Your task to perform on an android device: open a new tab in the chrome app Image 0: 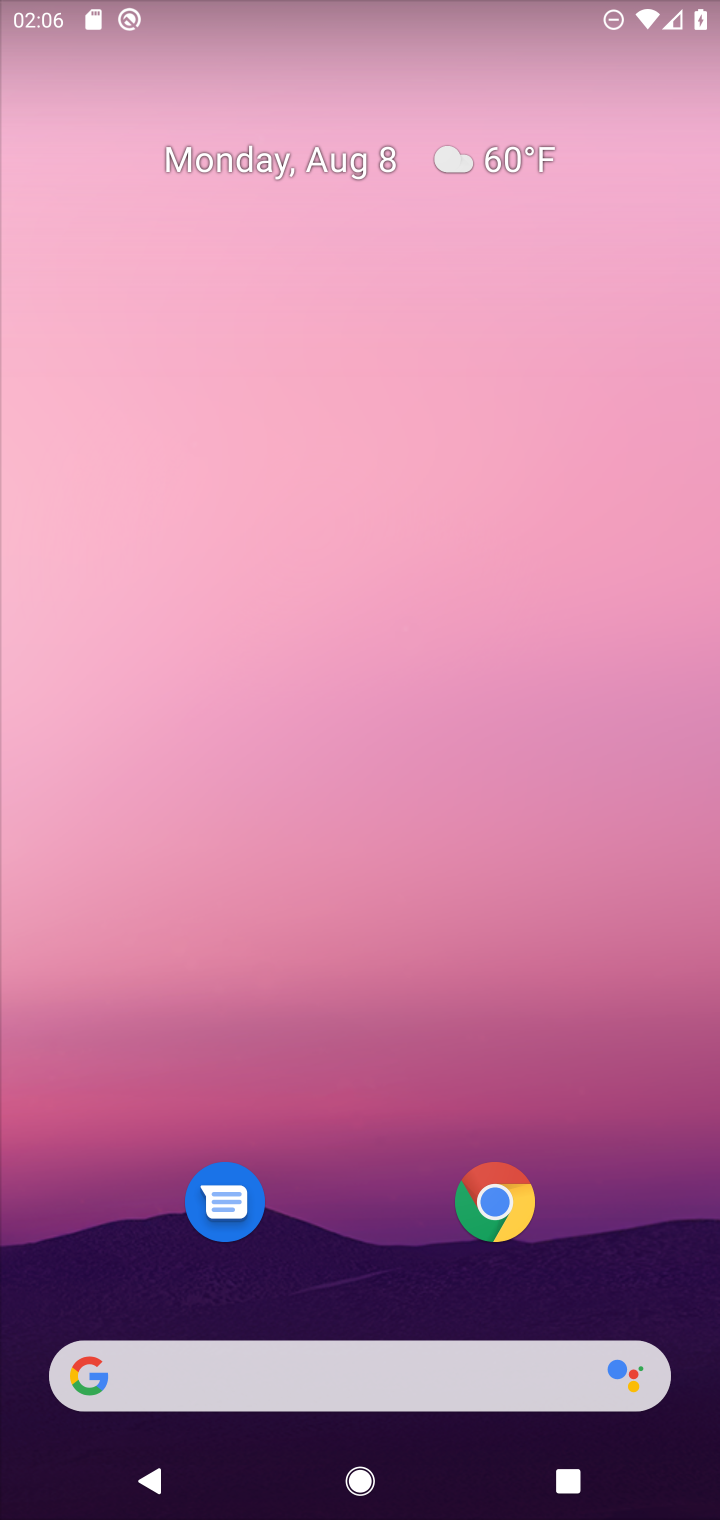
Step 0: press home button
Your task to perform on an android device: open a new tab in the chrome app Image 1: 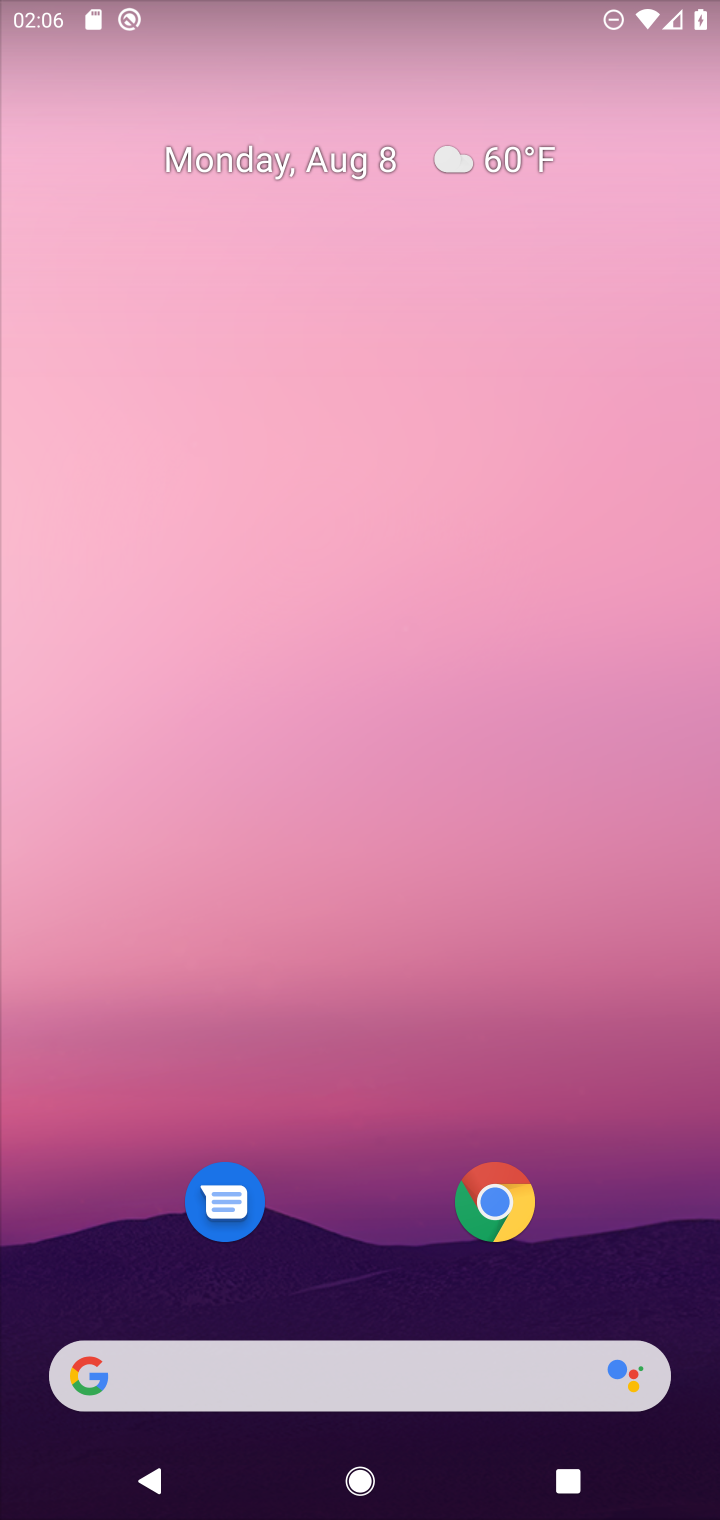
Step 1: drag from (604, 1106) to (641, 332)
Your task to perform on an android device: open a new tab in the chrome app Image 2: 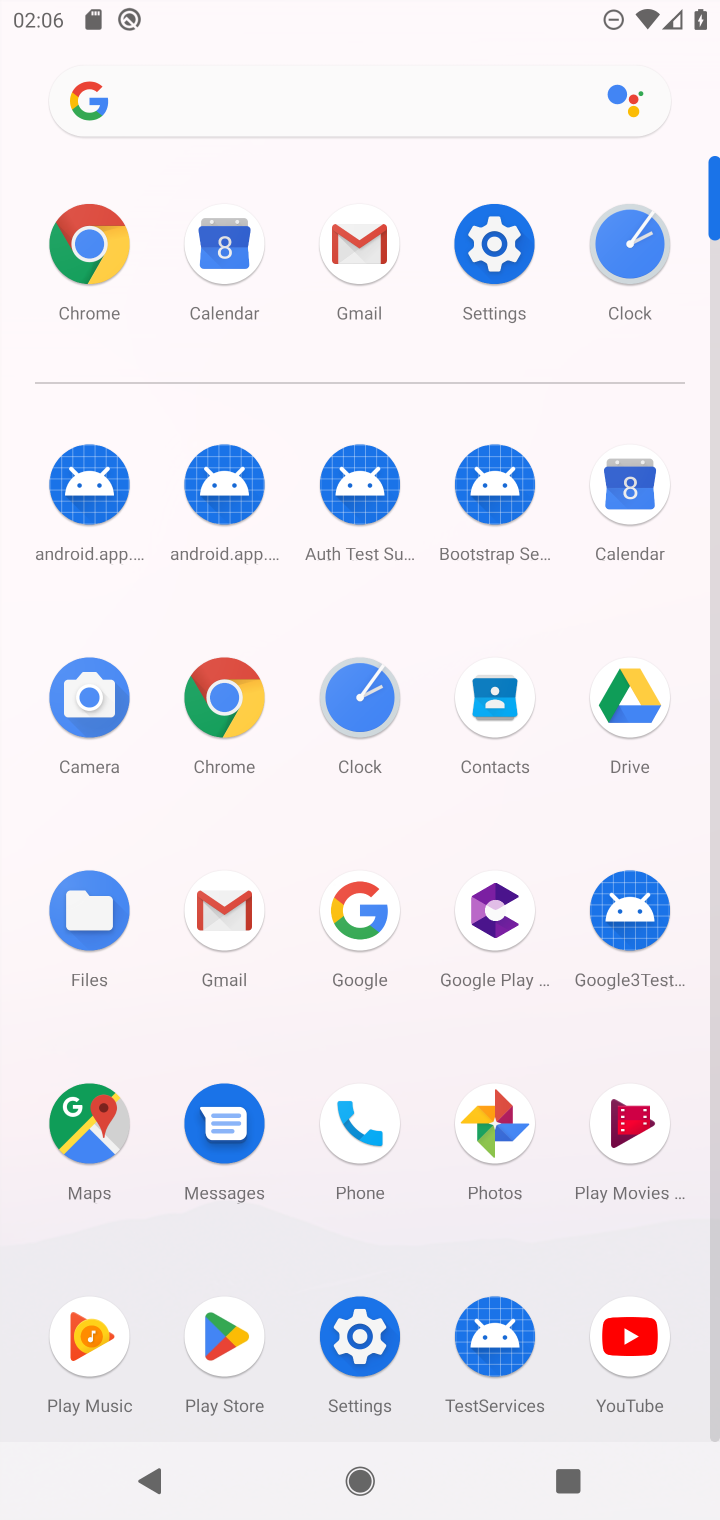
Step 2: click (204, 725)
Your task to perform on an android device: open a new tab in the chrome app Image 3: 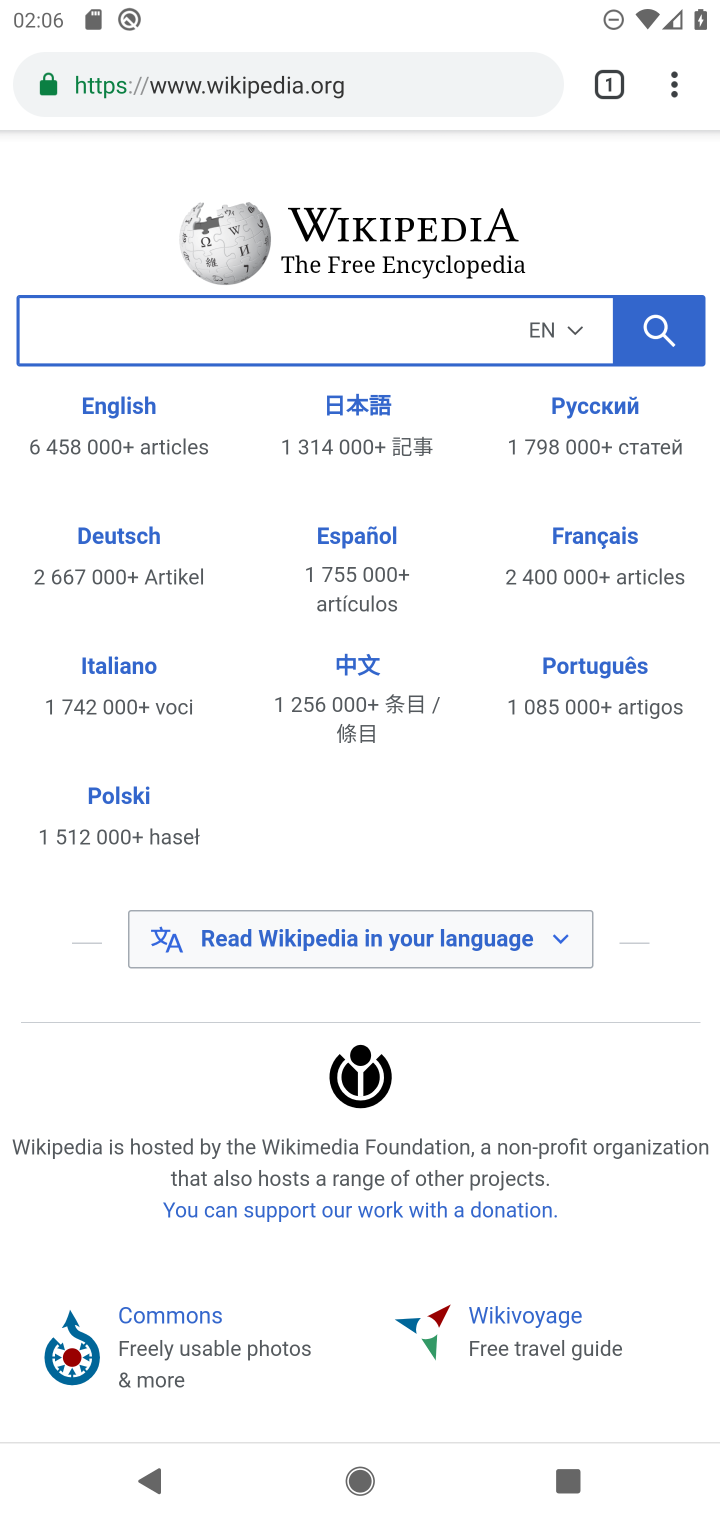
Step 3: click (670, 83)
Your task to perform on an android device: open a new tab in the chrome app Image 4: 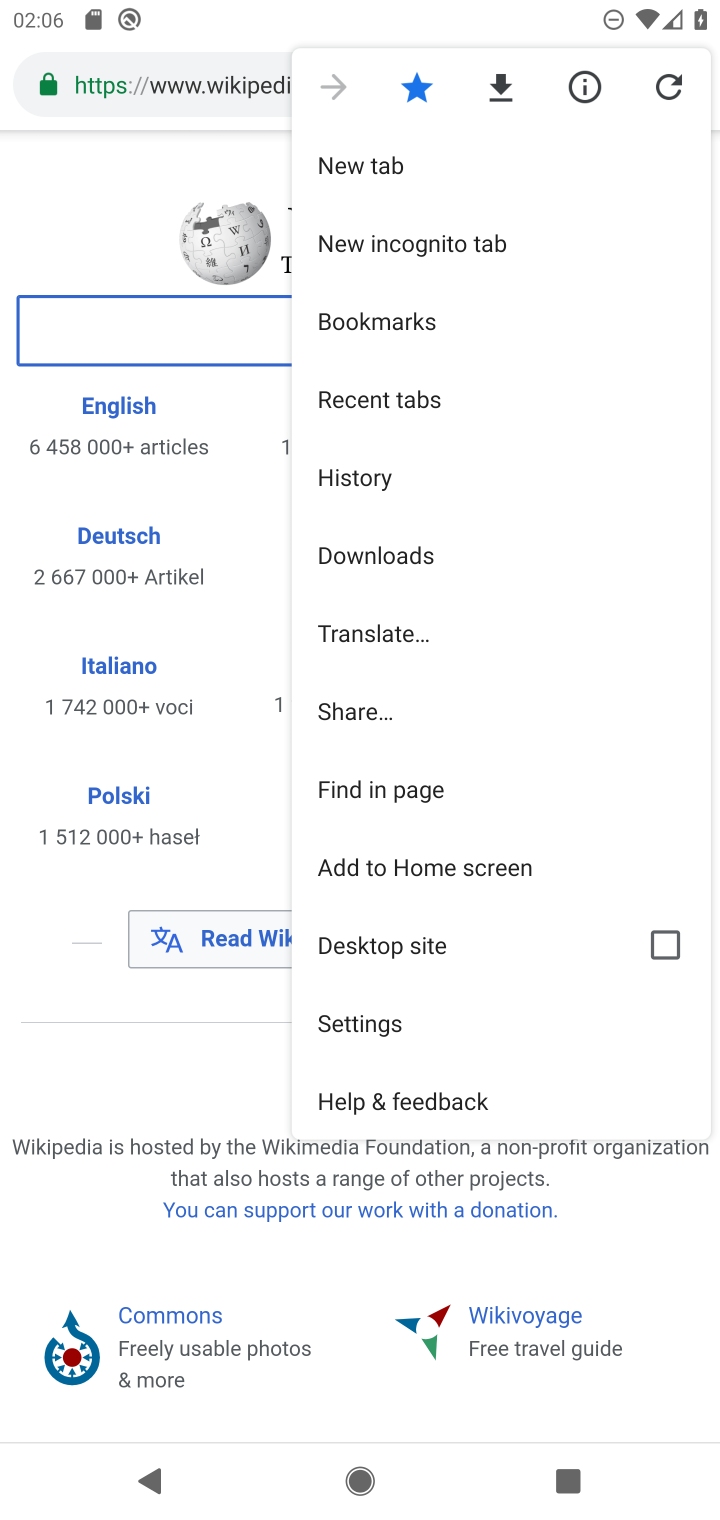
Step 4: click (357, 140)
Your task to perform on an android device: open a new tab in the chrome app Image 5: 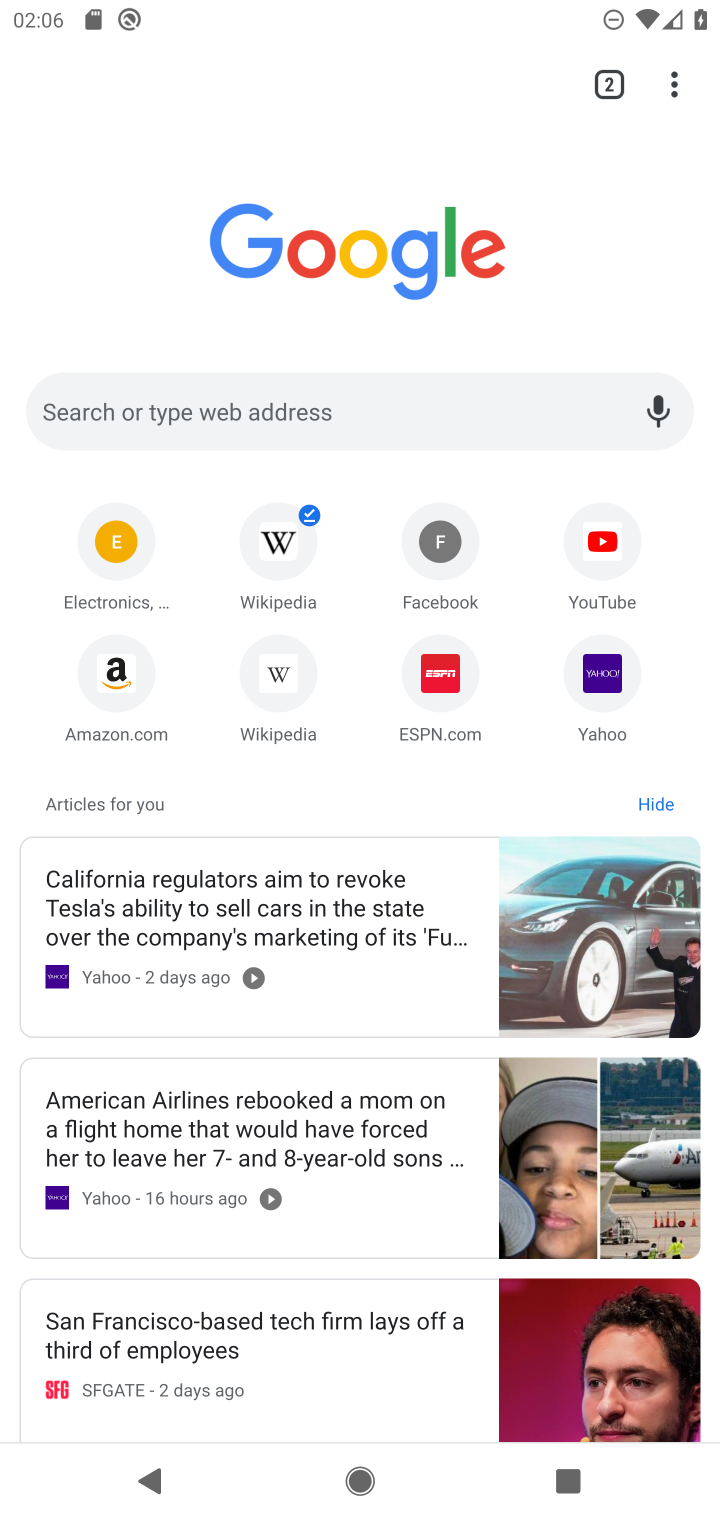
Step 5: task complete